Your task to perform on an android device: Open display settings Image 0: 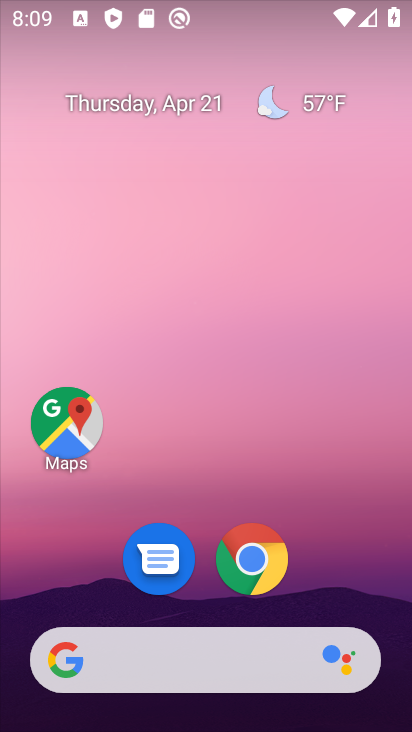
Step 0: drag from (251, 553) to (282, 154)
Your task to perform on an android device: Open display settings Image 1: 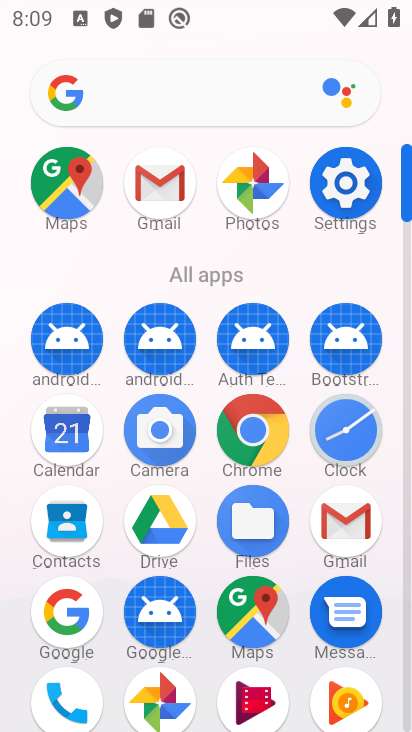
Step 1: click (355, 165)
Your task to perform on an android device: Open display settings Image 2: 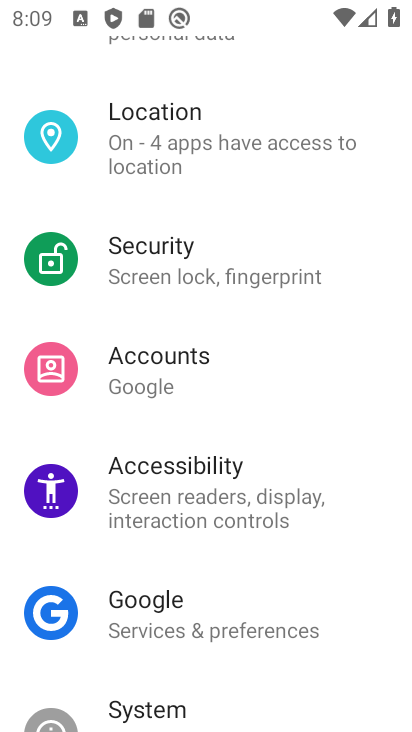
Step 2: drag from (317, 162) to (311, 723)
Your task to perform on an android device: Open display settings Image 3: 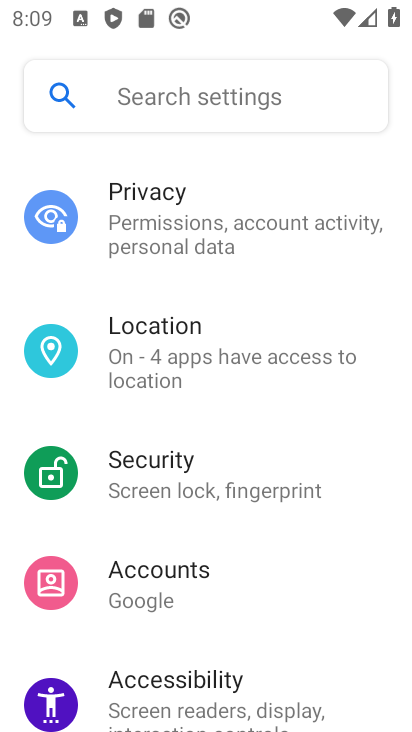
Step 3: drag from (342, 216) to (289, 637)
Your task to perform on an android device: Open display settings Image 4: 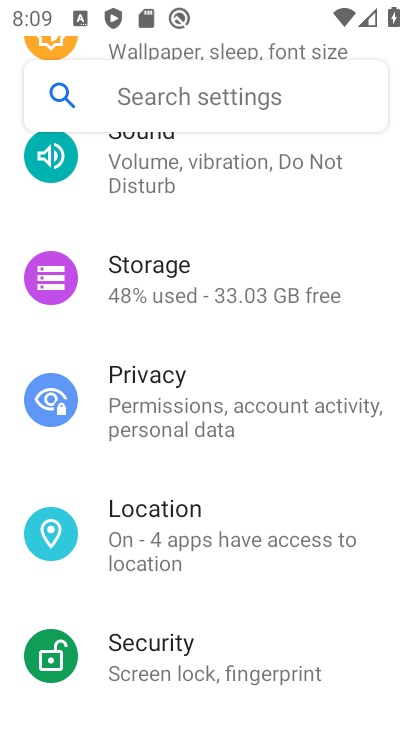
Step 4: drag from (359, 192) to (249, 689)
Your task to perform on an android device: Open display settings Image 5: 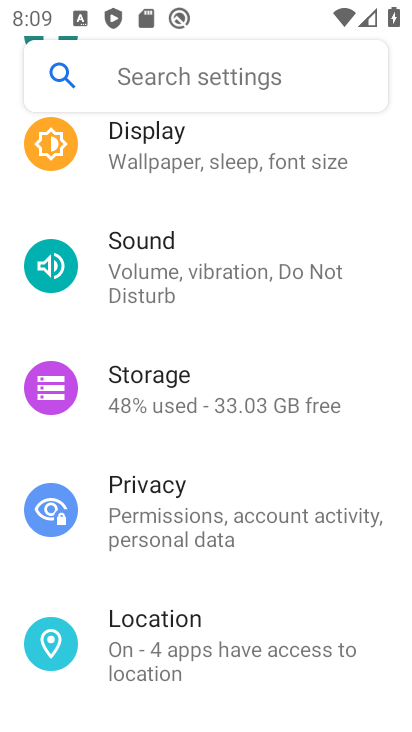
Step 5: click (309, 155)
Your task to perform on an android device: Open display settings Image 6: 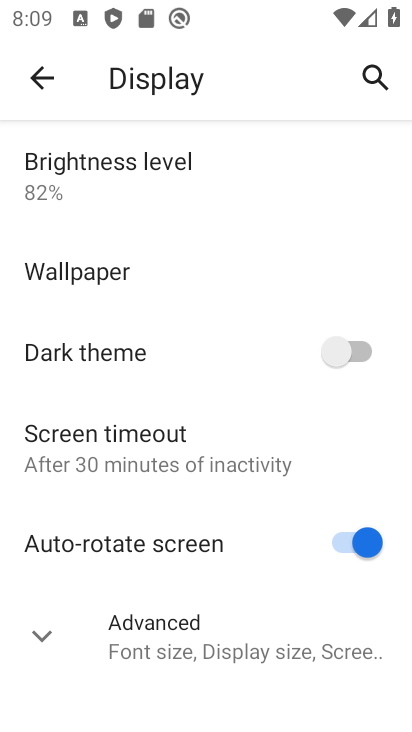
Step 6: task complete